Your task to perform on an android device: set an alarm Image 0: 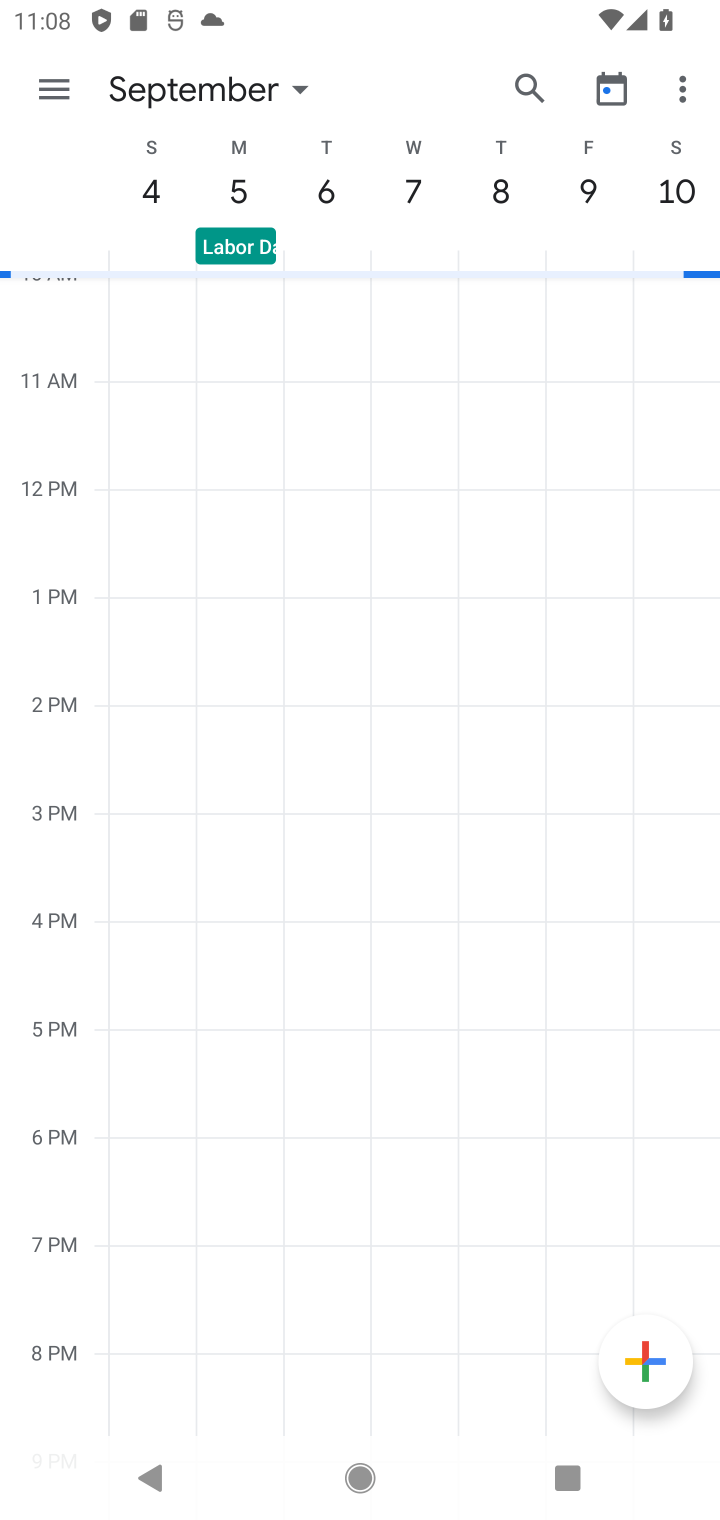
Step 0: press home button
Your task to perform on an android device: set an alarm Image 1: 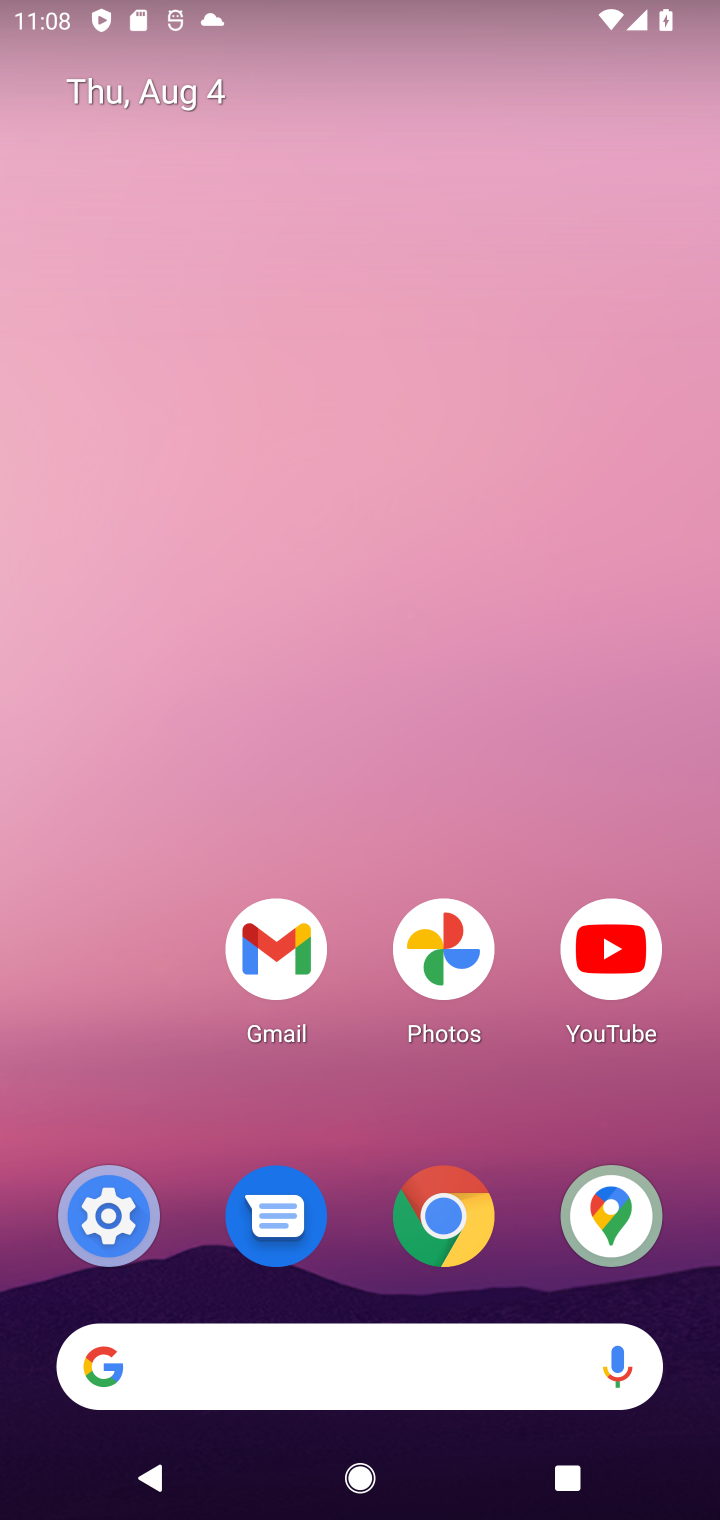
Step 1: drag from (315, 1396) to (383, 433)
Your task to perform on an android device: set an alarm Image 2: 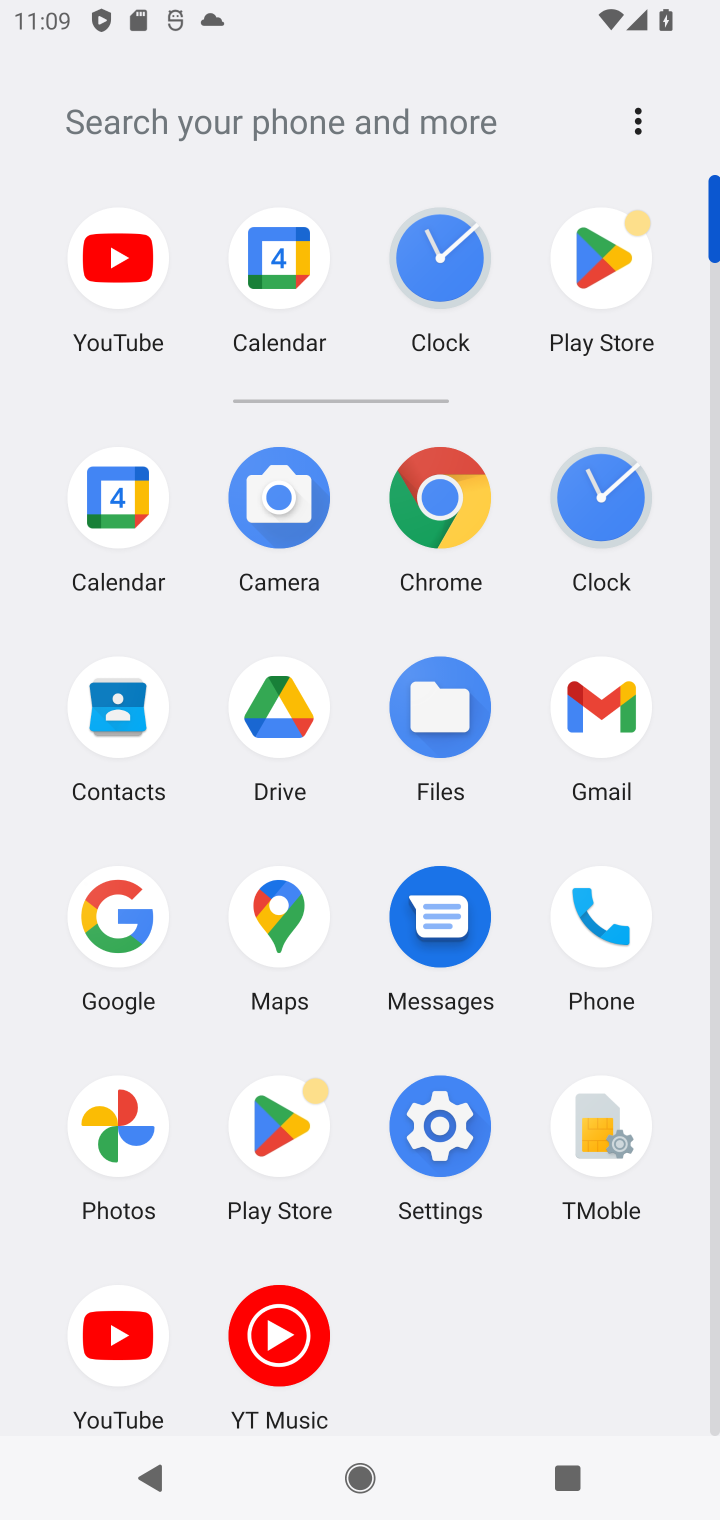
Step 2: click (442, 259)
Your task to perform on an android device: set an alarm Image 3: 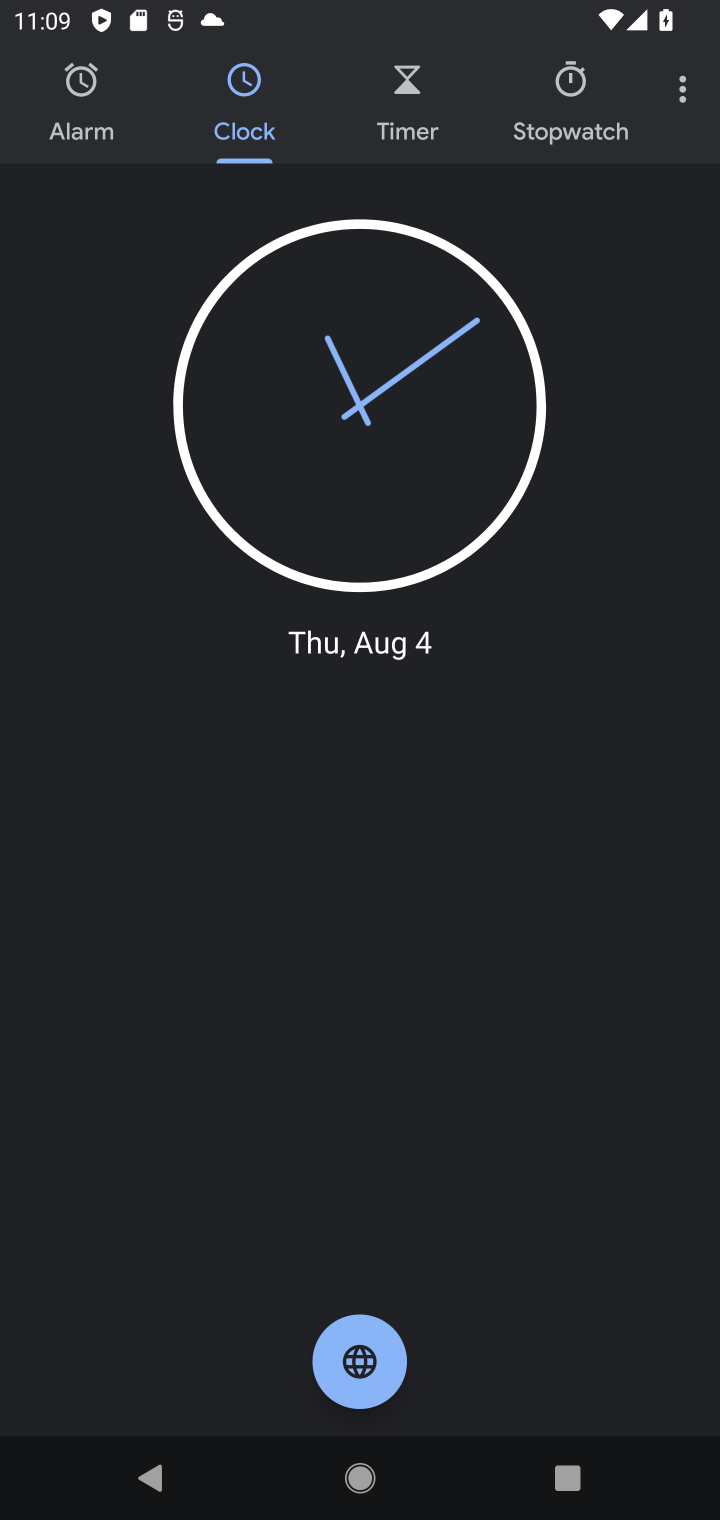
Step 3: click (85, 86)
Your task to perform on an android device: set an alarm Image 4: 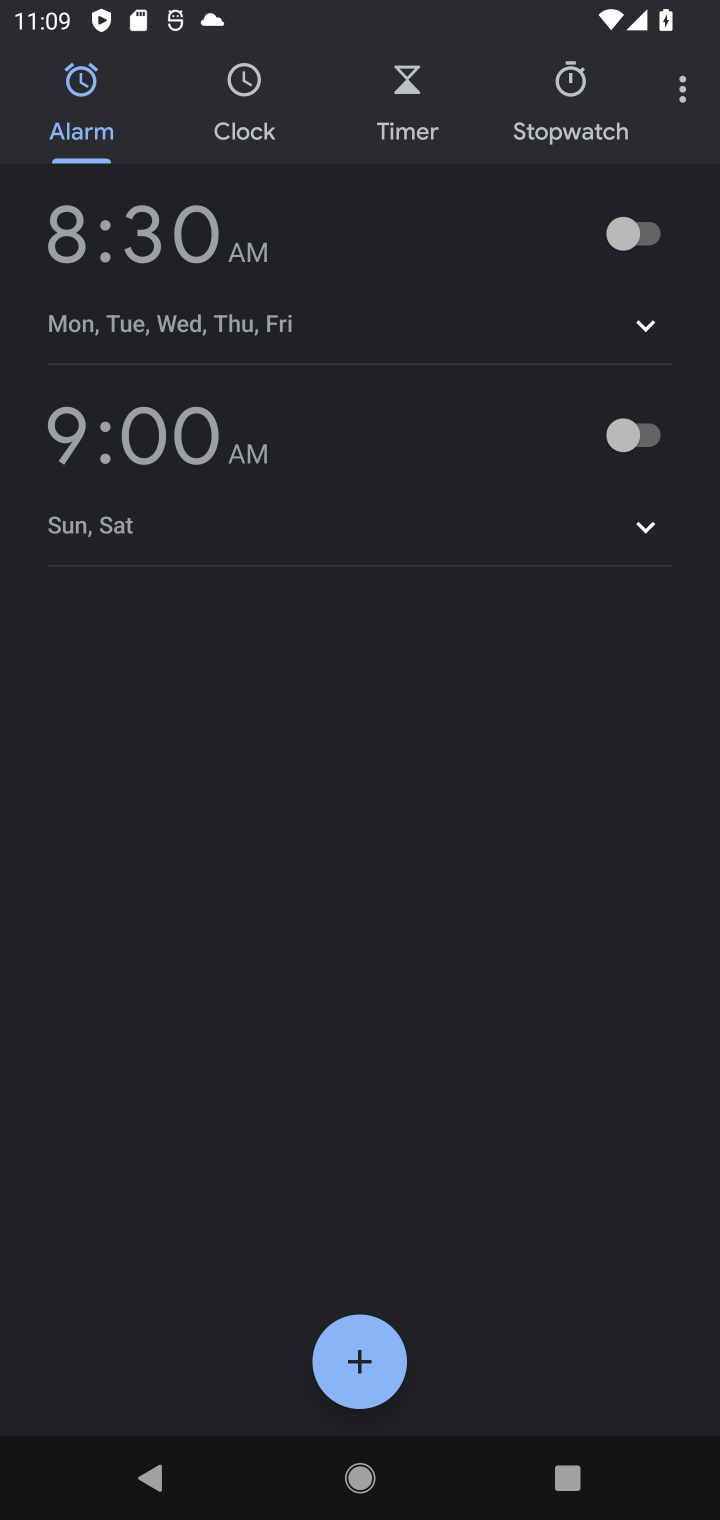
Step 4: click (354, 1372)
Your task to perform on an android device: set an alarm Image 5: 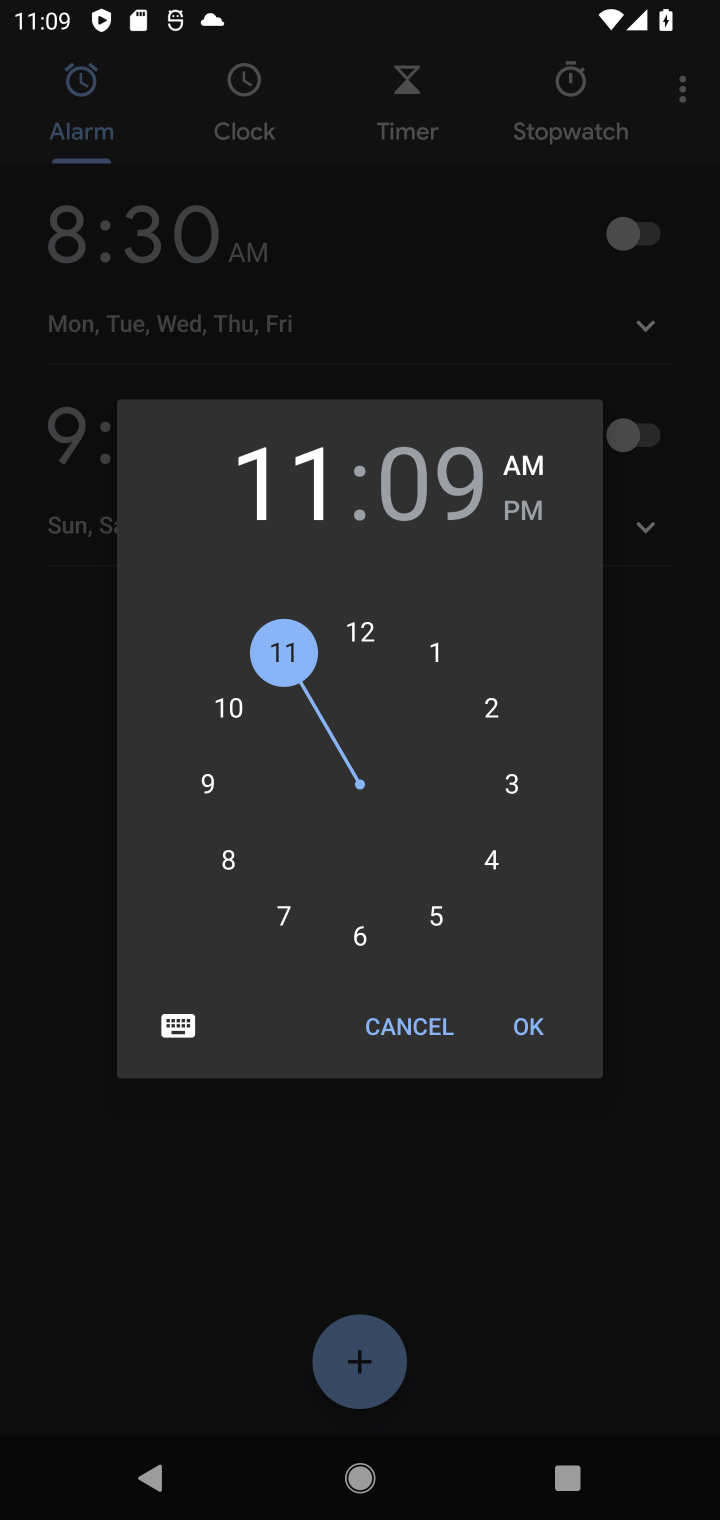
Step 5: click (218, 793)
Your task to perform on an android device: set an alarm Image 6: 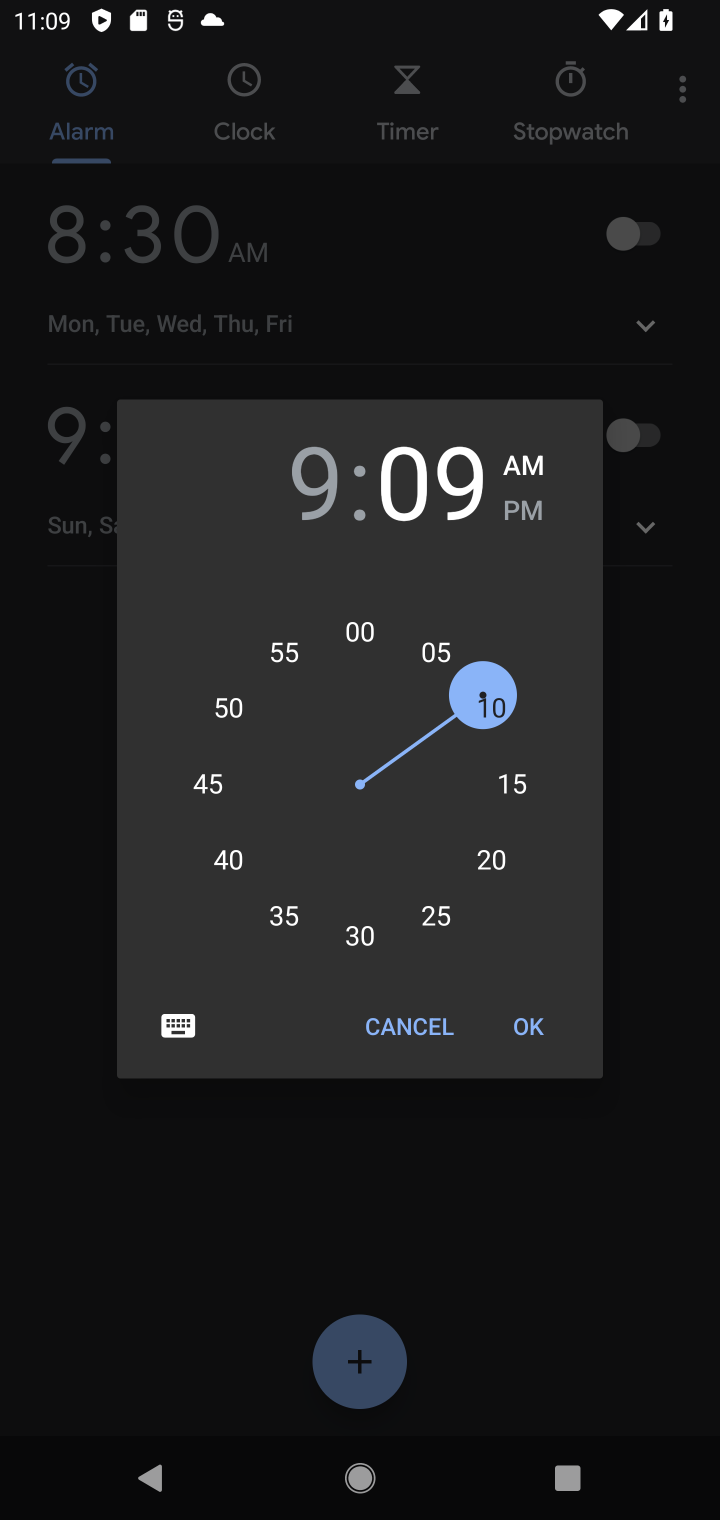
Step 6: click (218, 793)
Your task to perform on an android device: set an alarm Image 7: 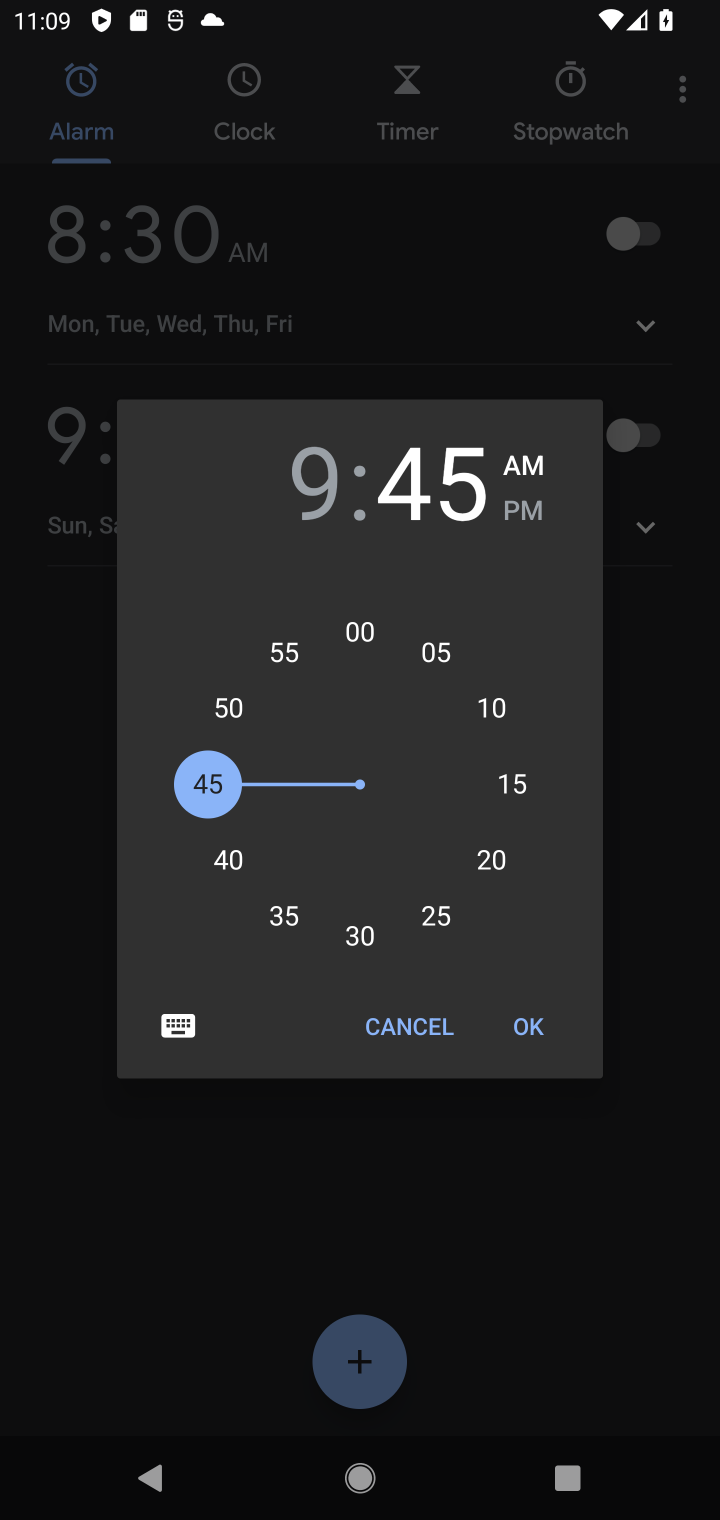
Step 7: click (533, 514)
Your task to perform on an android device: set an alarm Image 8: 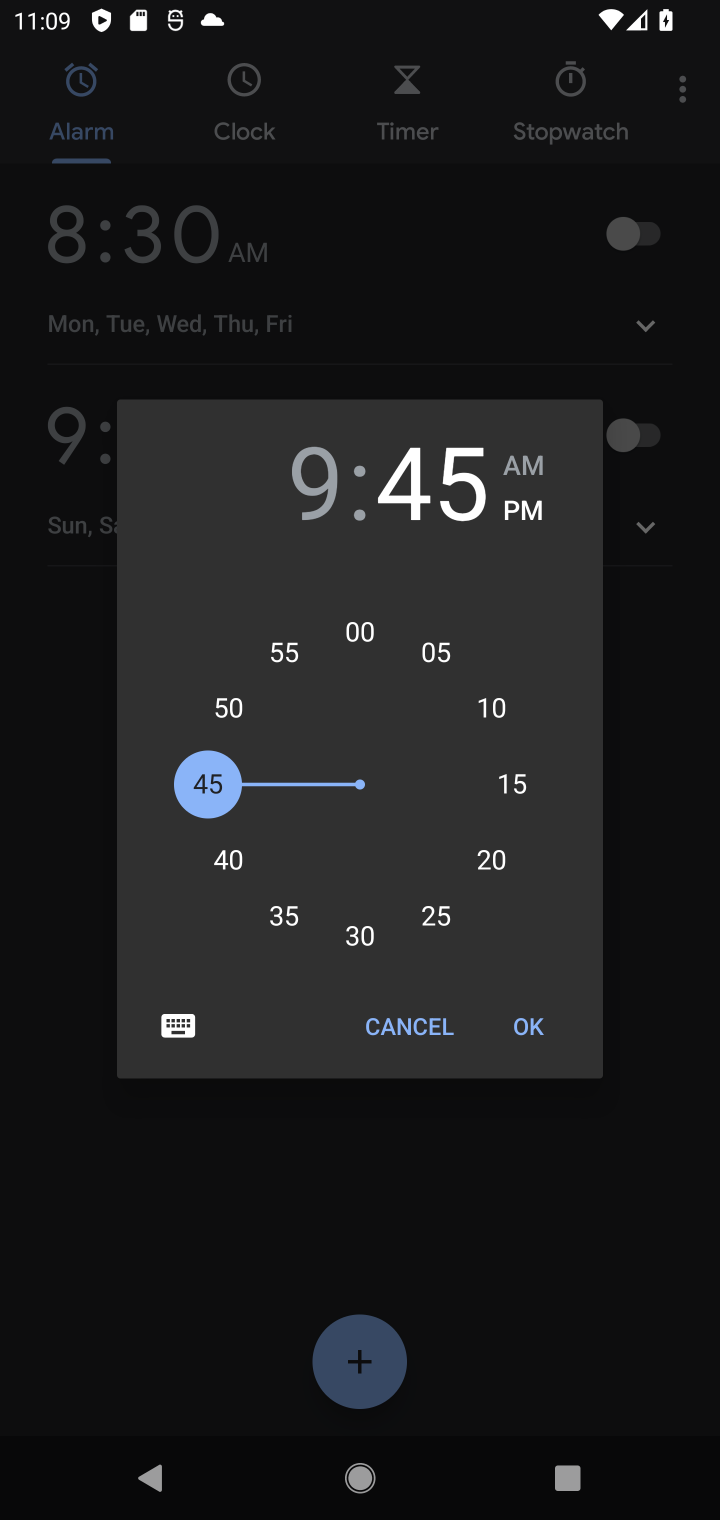
Step 8: click (536, 1036)
Your task to perform on an android device: set an alarm Image 9: 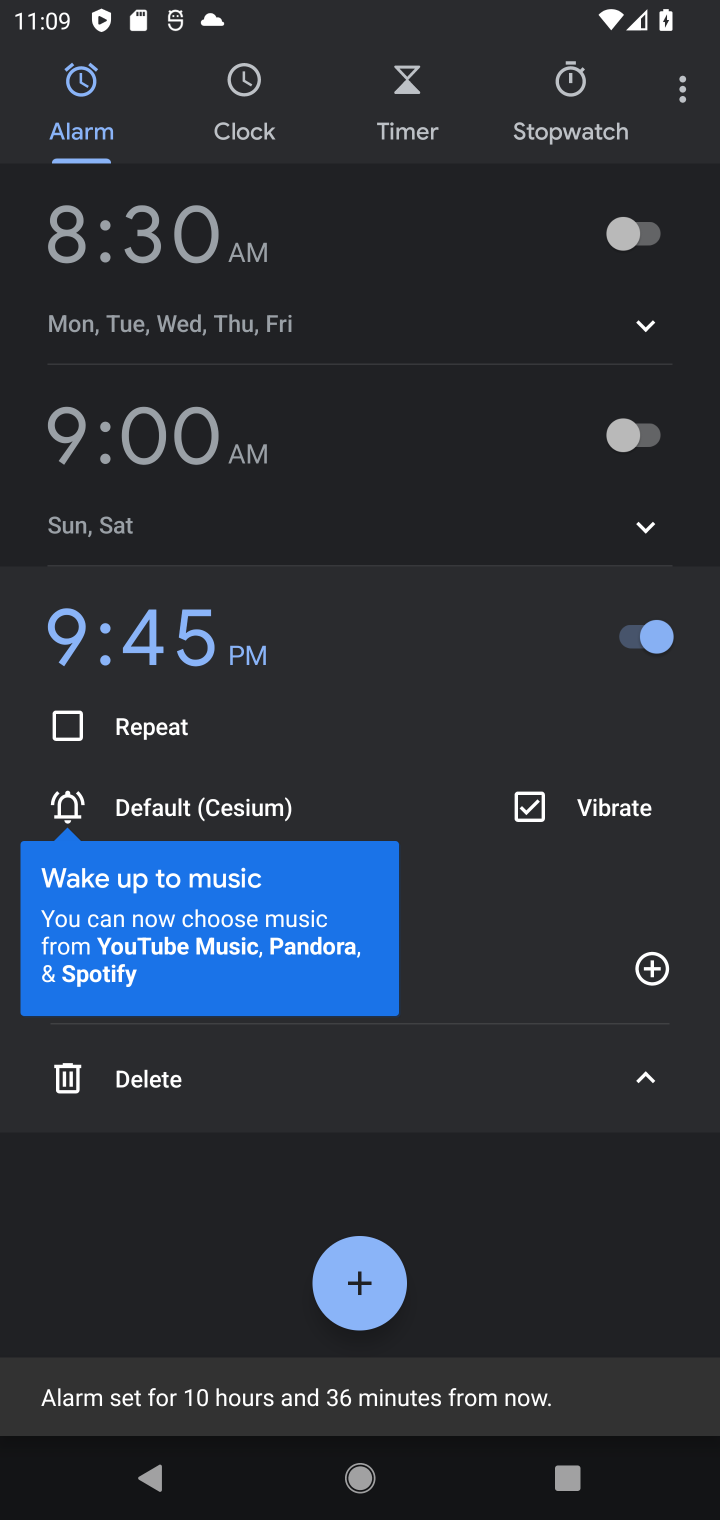
Step 9: click (647, 1083)
Your task to perform on an android device: set an alarm Image 10: 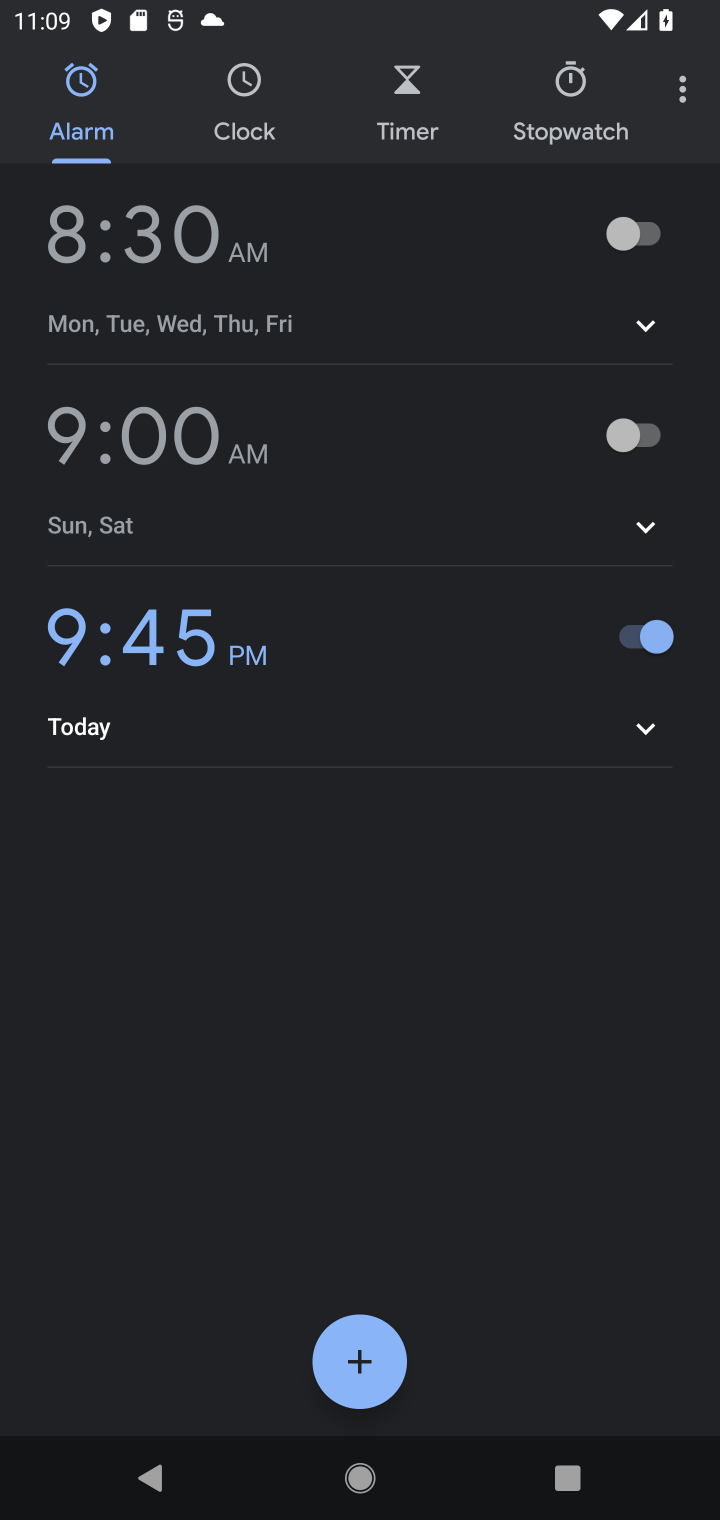
Step 10: task complete